Your task to perform on an android device: Toggle notifications for the Google Photos app Image 0: 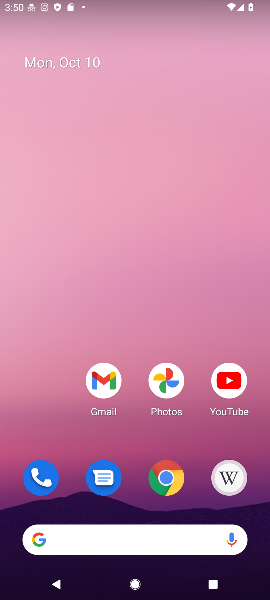
Step 0: drag from (218, 232) to (190, 101)
Your task to perform on an android device: Toggle notifications for the Google Photos app Image 1: 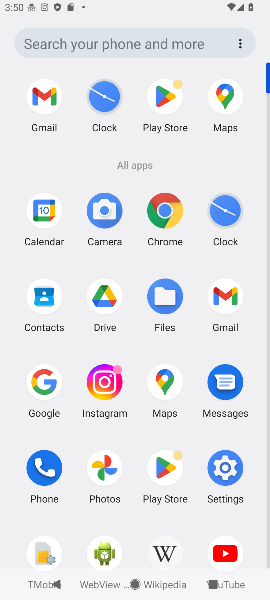
Step 1: click (220, 466)
Your task to perform on an android device: Toggle notifications for the Google Photos app Image 2: 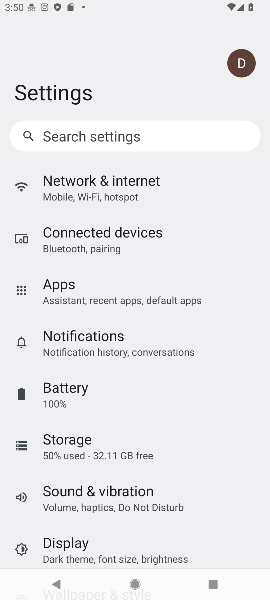
Step 2: click (115, 345)
Your task to perform on an android device: Toggle notifications for the Google Photos app Image 3: 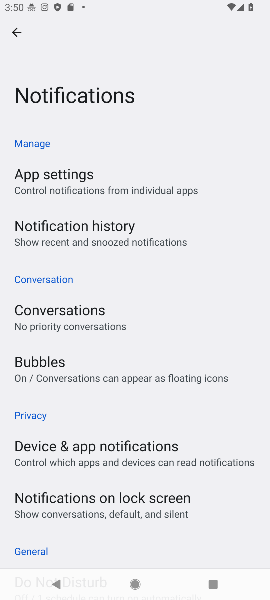
Step 3: click (63, 191)
Your task to perform on an android device: Toggle notifications for the Google Photos app Image 4: 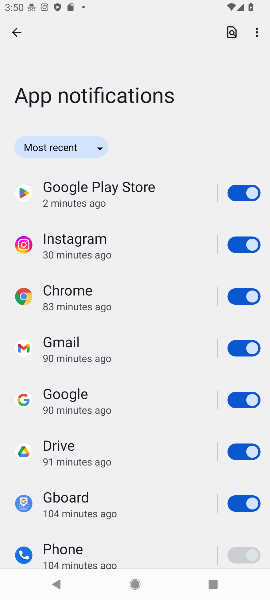
Step 4: drag from (19, 535) to (110, 132)
Your task to perform on an android device: Toggle notifications for the Google Photos app Image 5: 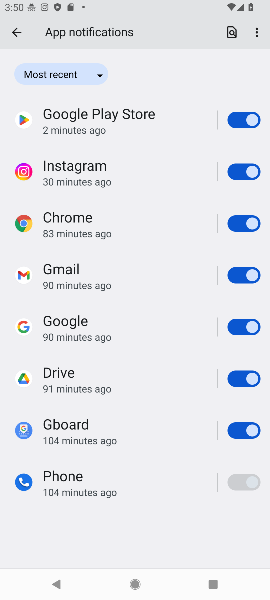
Step 5: click (72, 69)
Your task to perform on an android device: Toggle notifications for the Google Photos app Image 6: 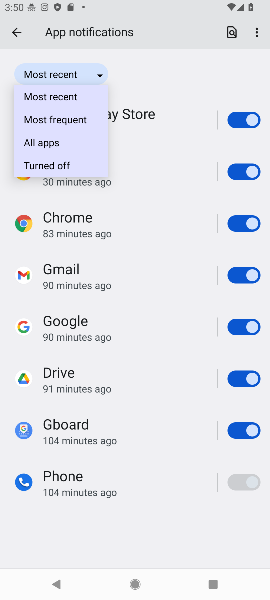
Step 6: click (30, 149)
Your task to perform on an android device: Toggle notifications for the Google Photos app Image 7: 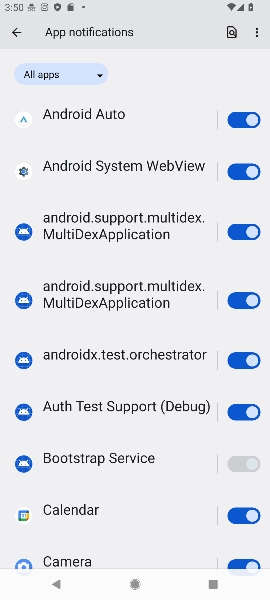
Step 7: drag from (42, 537) to (117, 113)
Your task to perform on an android device: Toggle notifications for the Google Photos app Image 8: 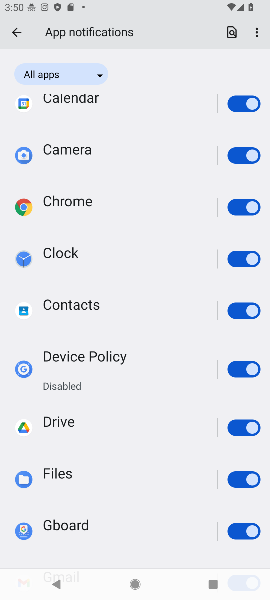
Step 8: drag from (42, 550) to (127, 176)
Your task to perform on an android device: Toggle notifications for the Google Photos app Image 9: 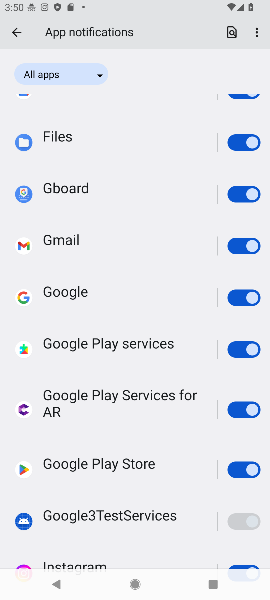
Step 9: drag from (64, 536) to (92, 11)
Your task to perform on an android device: Toggle notifications for the Google Photos app Image 10: 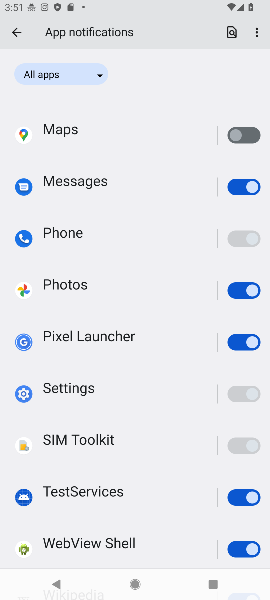
Step 10: click (256, 294)
Your task to perform on an android device: Toggle notifications for the Google Photos app Image 11: 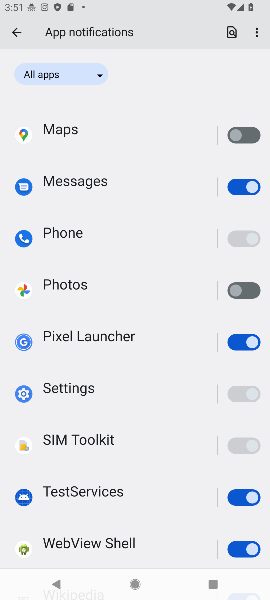
Step 11: click (256, 294)
Your task to perform on an android device: Toggle notifications for the Google Photos app Image 12: 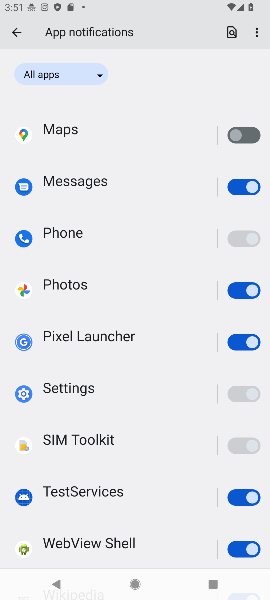
Step 12: click (256, 294)
Your task to perform on an android device: Toggle notifications for the Google Photos app Image 13: 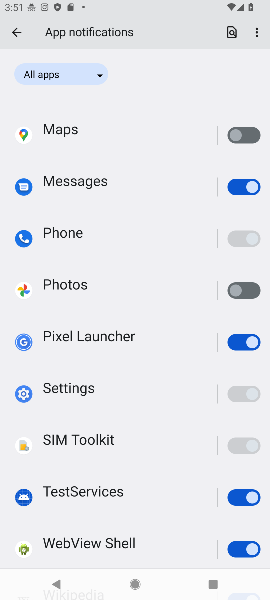
Step 13: task complete